Your task to perform on an android device: turn on airplane mode Image 0: 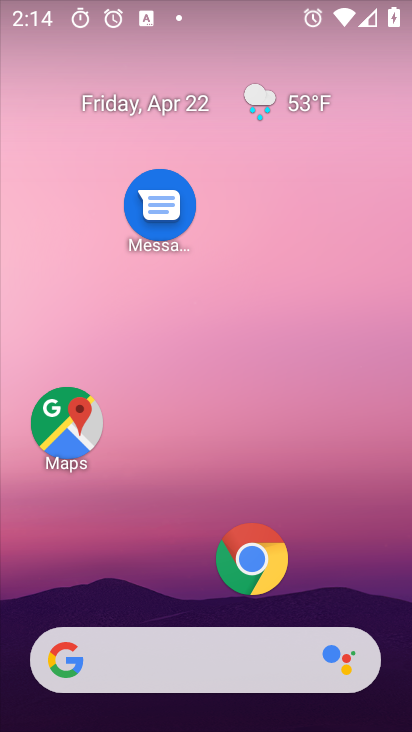
Step 0: drag from (181, 556) to (183, 198)
Your task to perform on an android device: turn on airplane mode Image 1: 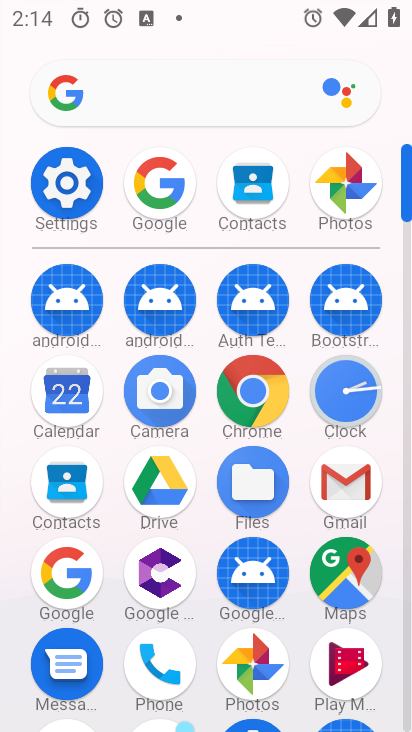
Step 1: click (59, 186)
Your task to perform on an android device: turn on airplane mode Image 2: 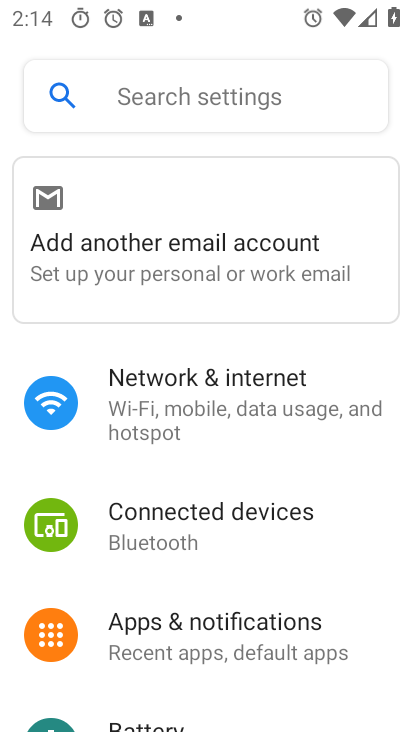
Step 2: click (200, 414)
Your task to perform on an android device: turn on airplane mode Image 3: 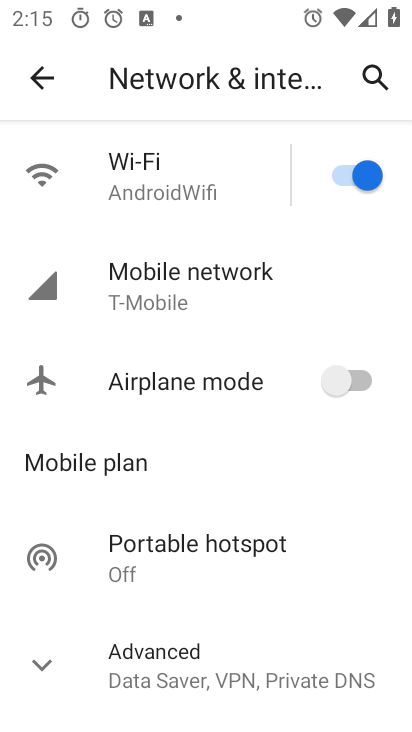
Step 3: click (359, 381)
Your task to perform on an android device: turn on airplane mode Image 4: 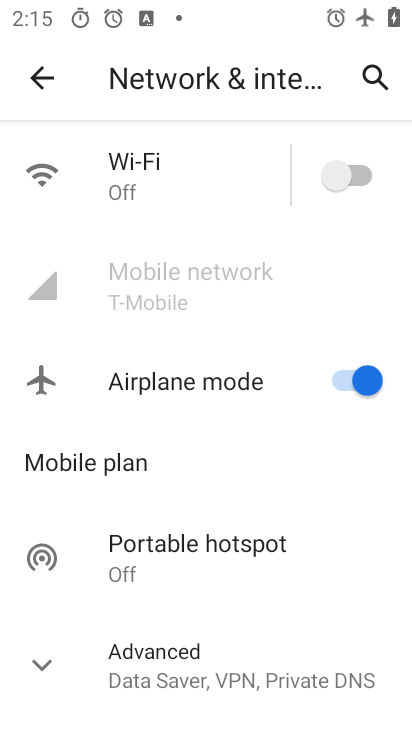
Step 4: task complete